Your task to perform on an android device: find photos in the google photos app Image 0: 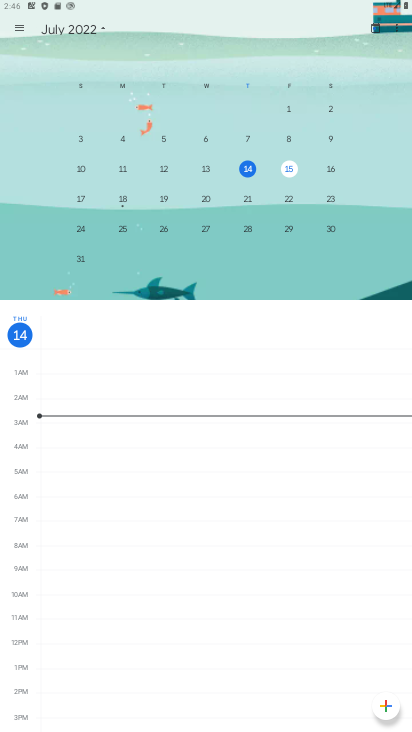
Step 0: press home button
Your task to perform on an android device: find photos in the google photos app Image 1: 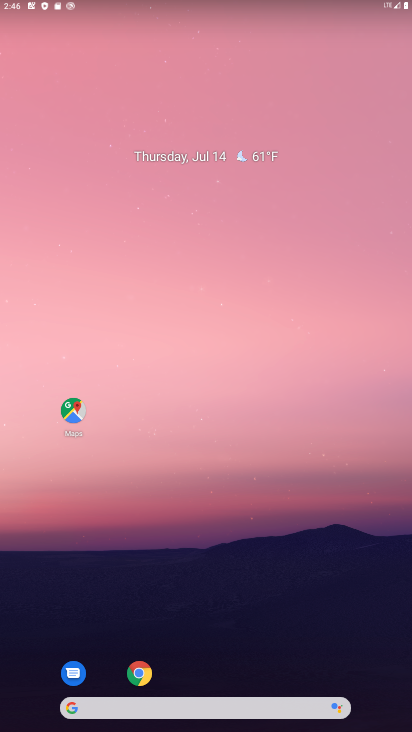
Step 1: drag from (188, 626) to (217, 266)
Your task to perform on an android device: find photos in the google photos app Image 2: 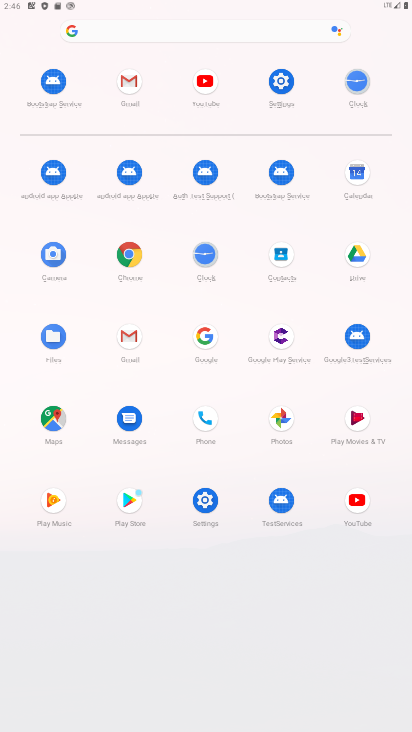
Step 2: click (281, 416)
Your task to perform on an android device: find photos in the google photos app Image 3: 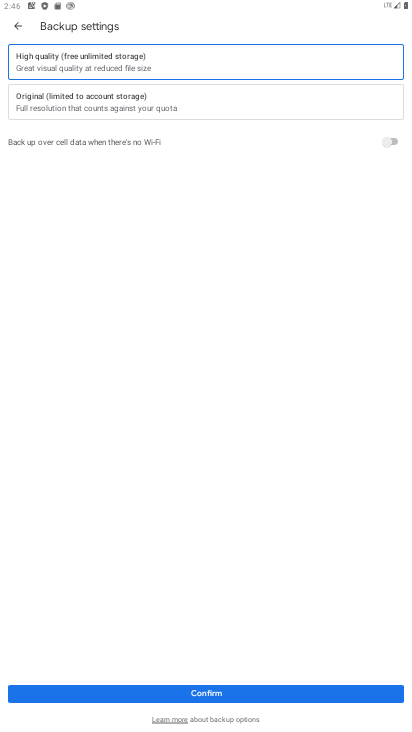
Step 3: click (196, 689)
Your task to perform on an android device: find photos in the google photos app Image 4: 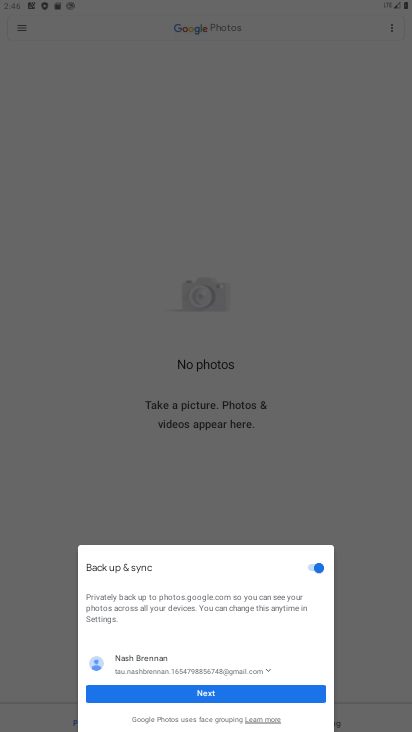
Step 4: click (256, 694)
Your task to perform on an android device: find photos in the google photos app Image 5: 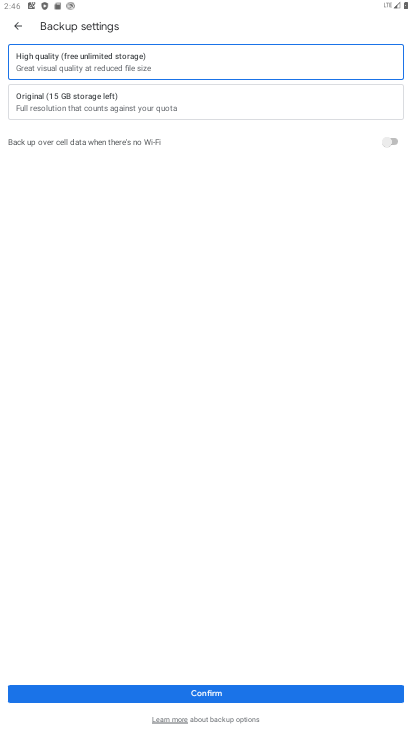
Step 5: task complete